Your task to perform on an android device: What's on my calendar today? Image 0: 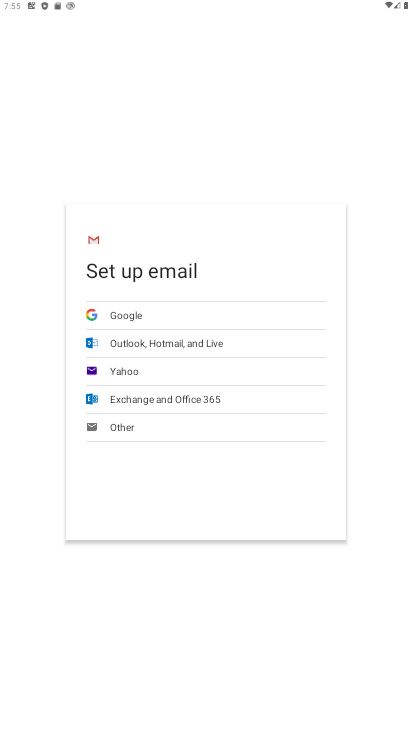
Step 0: press home button
Your task to perform on an android device: What's on my calendar today? Image 1: 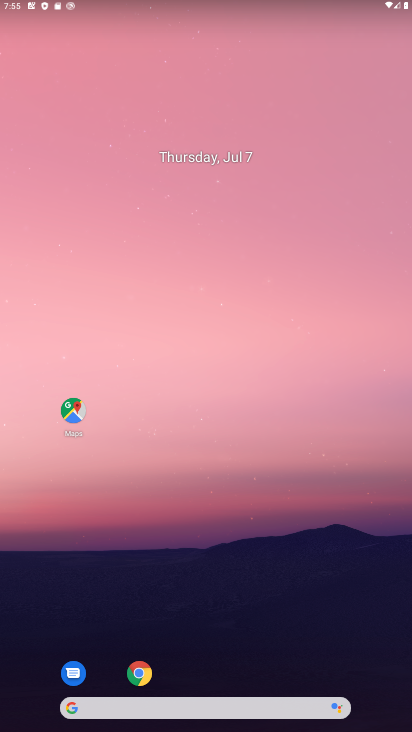
Step 1: drag from (185, 628) to (204, 97)
Your task to perform on an android device: What's on my calendar today? Image 2: 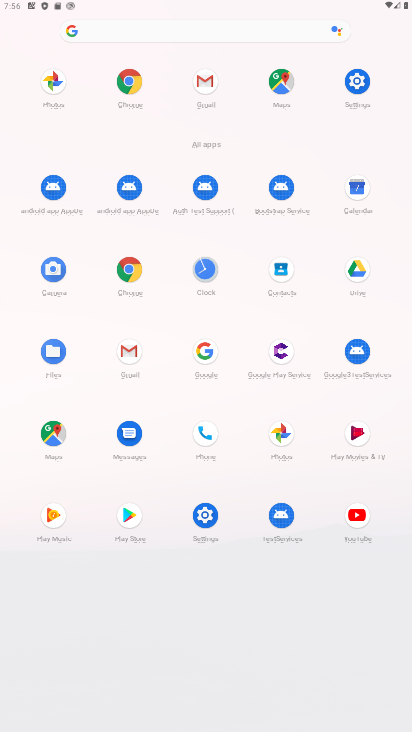
Step 2: click (361, 205)
Your task to perform on an android device: What's on my calendar today? Image 3: 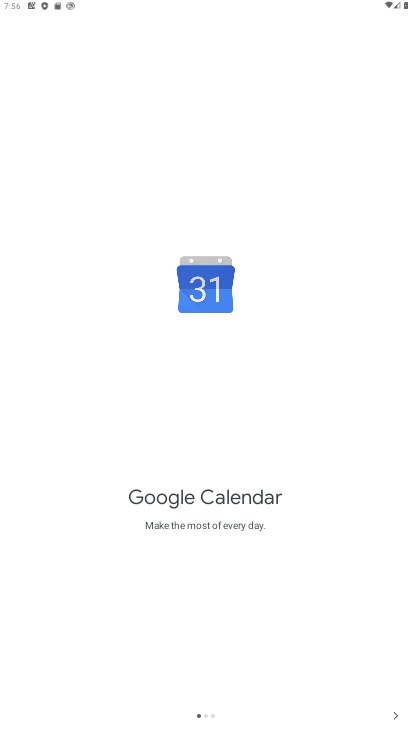
Step 3: click (397, 715)
Your task to perform on an android device: What's on my calendar today? Image 4: 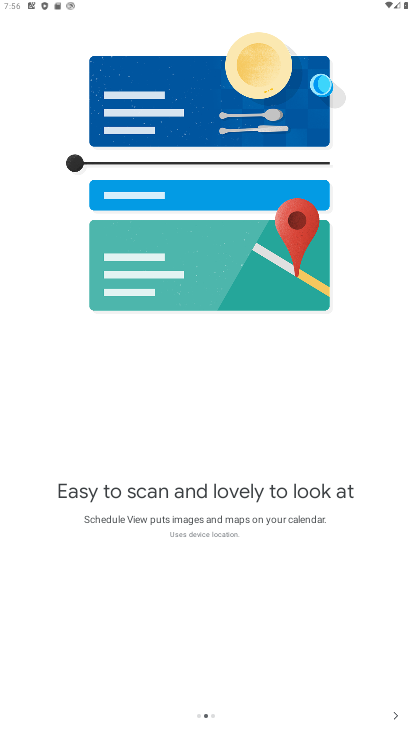
Step 4: click (397, 715)
Your task to perform on an android device: What's on my calendar today? Image 5: 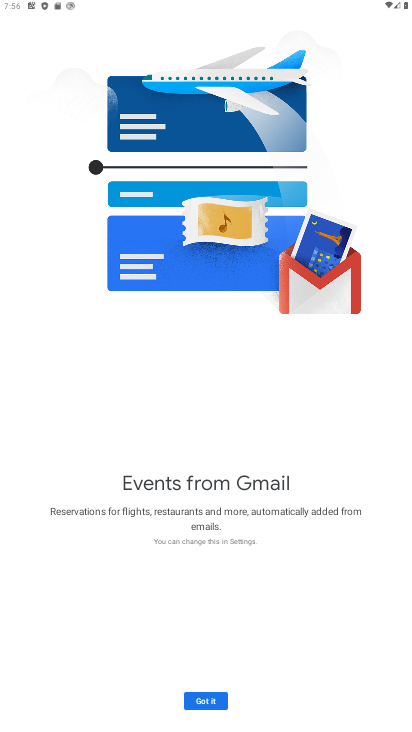
Step 5: click (204, 699)
Your task to perform on an android device: What's on my calendar today? Image 6: 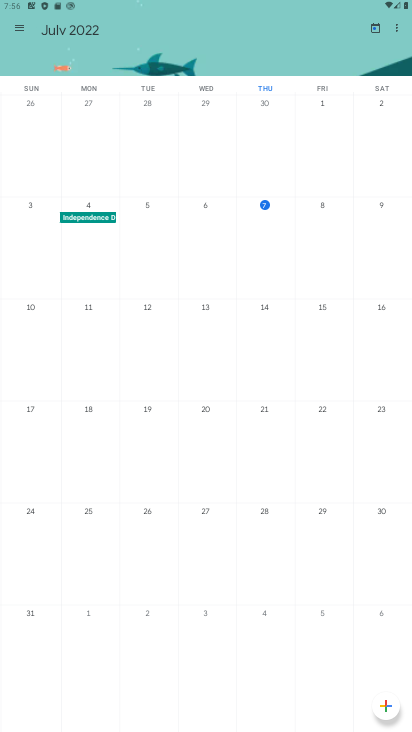
Step 6: task complete